Your task to perform on an android device: open app "Walmart Shopping & Grocery" (install if not already installed), go to login, and select forgot password Image 0: 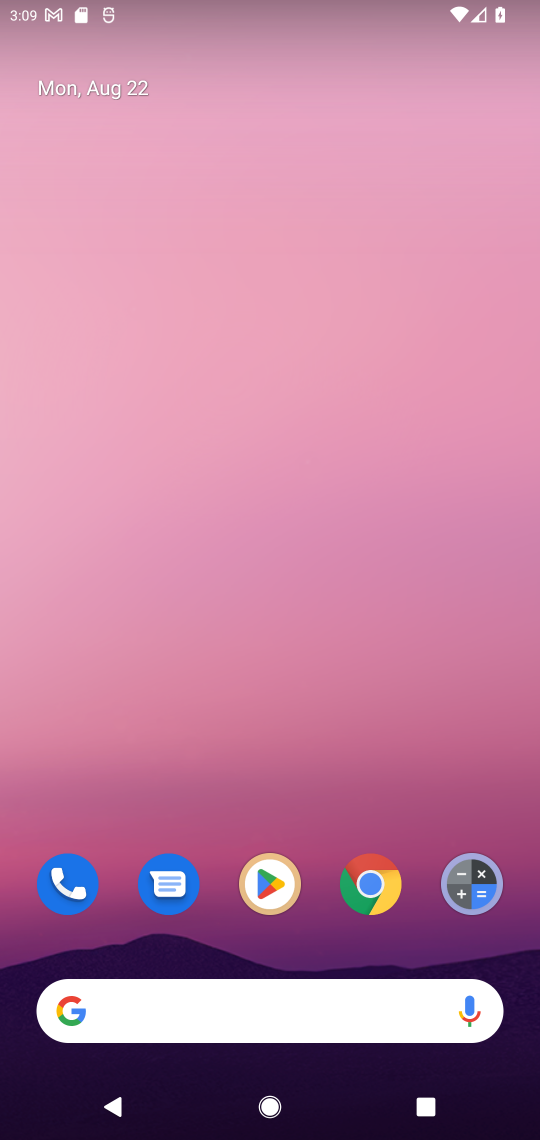
Step 0: click (283, 887)
Your task to perform on an android device: open app "Walmart Shopping & Grocery" (install if not already installed), go to login, and select forgot password Image 1: 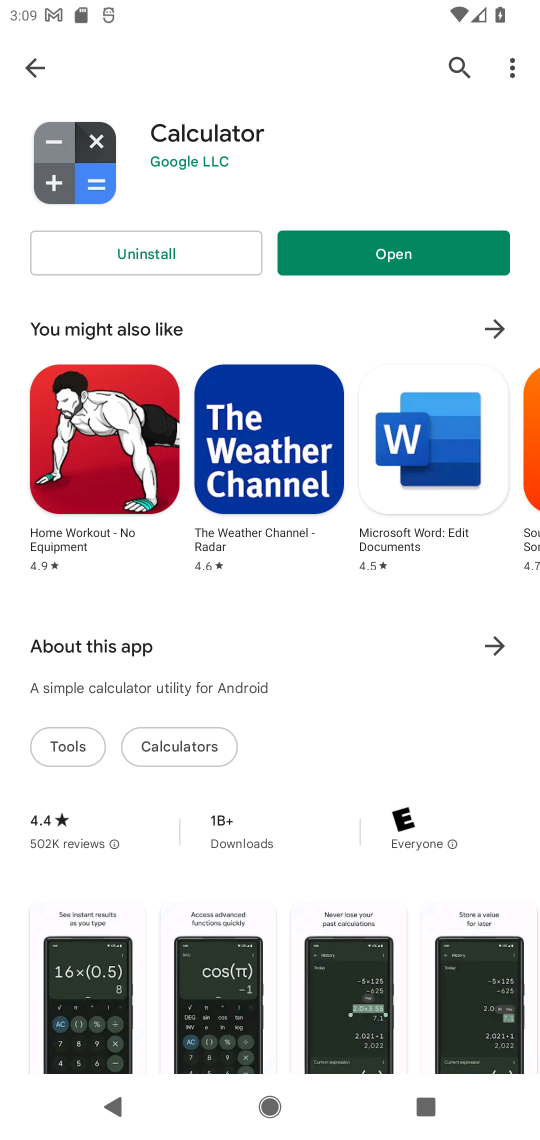
Step 1: click (36, 65)
Your task to perform on an android device: open app "Walmart Shopping & Grocery" (install if not already installed), go to login, and select forgot password Image 2: 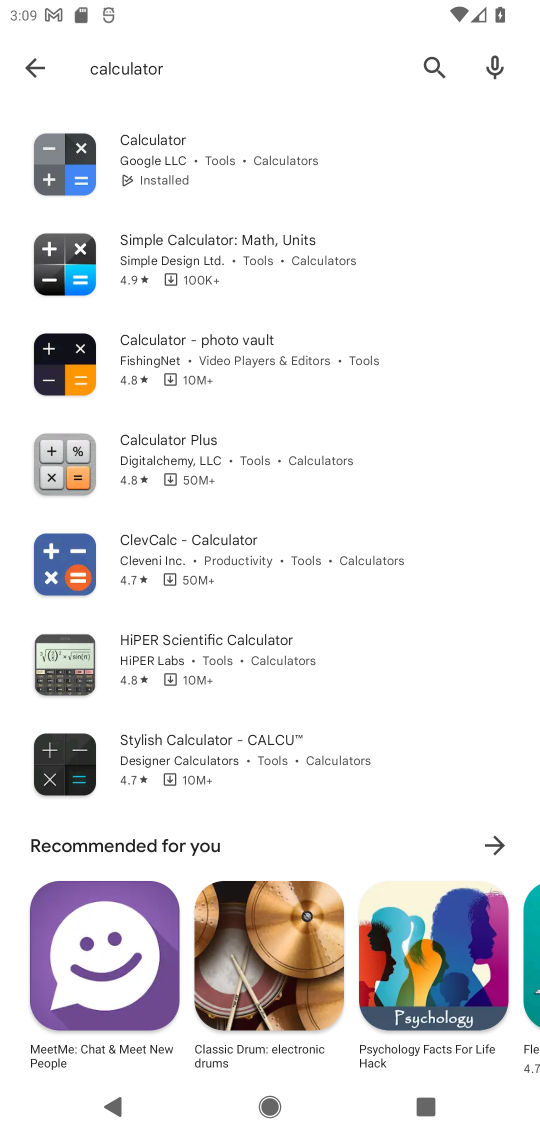
Step 2: click (209, 72)
Your task to perform on an android device: open app "Walmart Shopping & Grocery" (install if not already installed), go to login, and select forgot password Image 3: 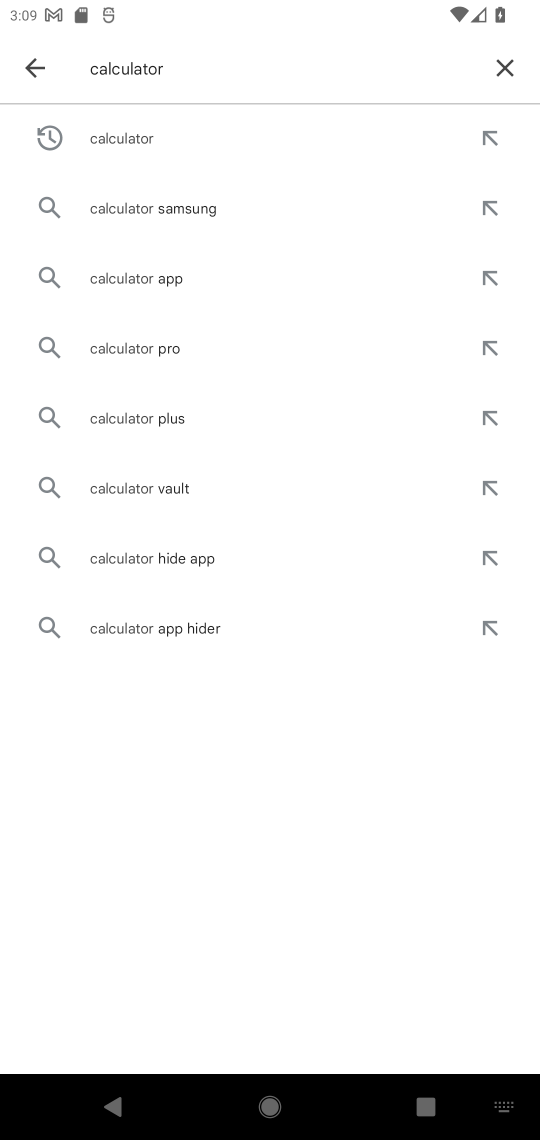
Step 3: click (501, 67)
Your task to perform on an android device: open app "Walmart Shopping & Grocery" (install if not already installed), go to login, and select forgot password Image 4: 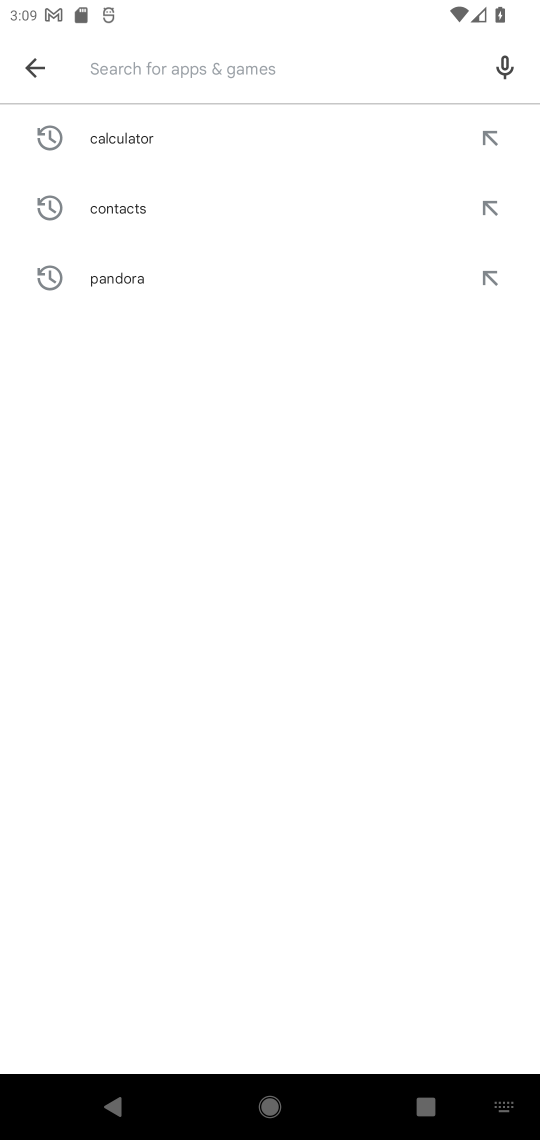
Step 4: type "Walmart"
Your task to perform on an android device: open app "Walmart Shopping & Grocery" (install if not already installed), go to login, and select forgot password Image 5: 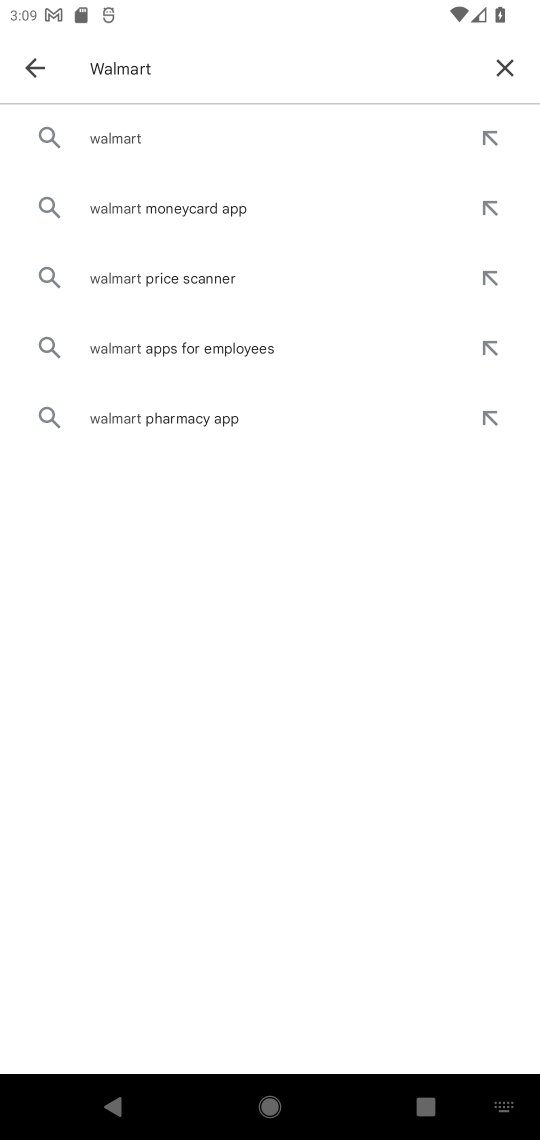
Step 5: click (135, 148)
Your task to perform on an android device: open app "Walmart Shopping & Grocery" (install if not already installed), go to login, and select forgot password Image 6: 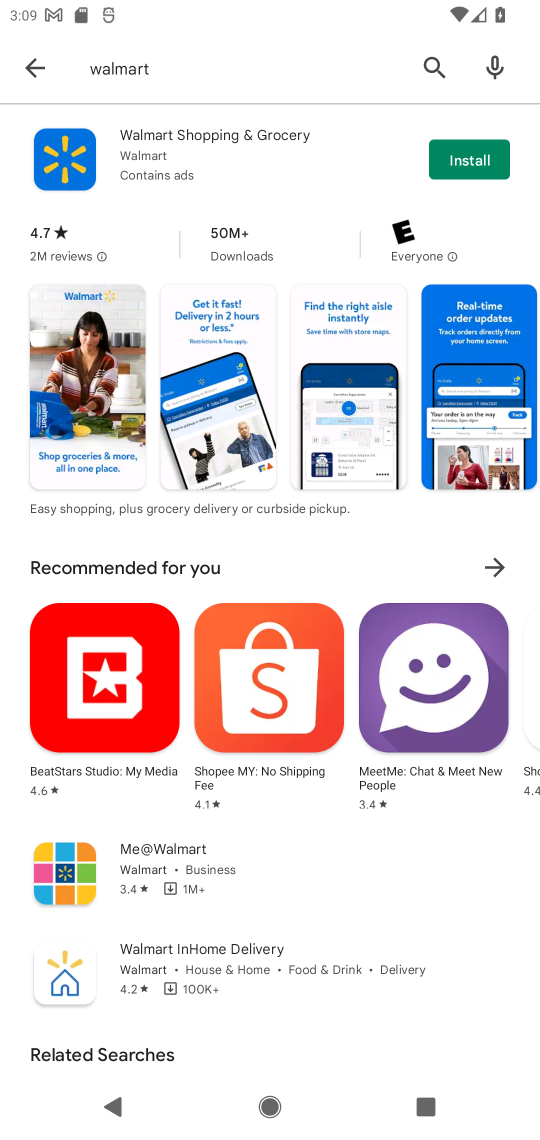
Step 6: click (475, 154)
Your task to perform on an android device: open app "Walmart Shopping & Grocery" (install if not already installed), go to login, and select forgot password Image 7: 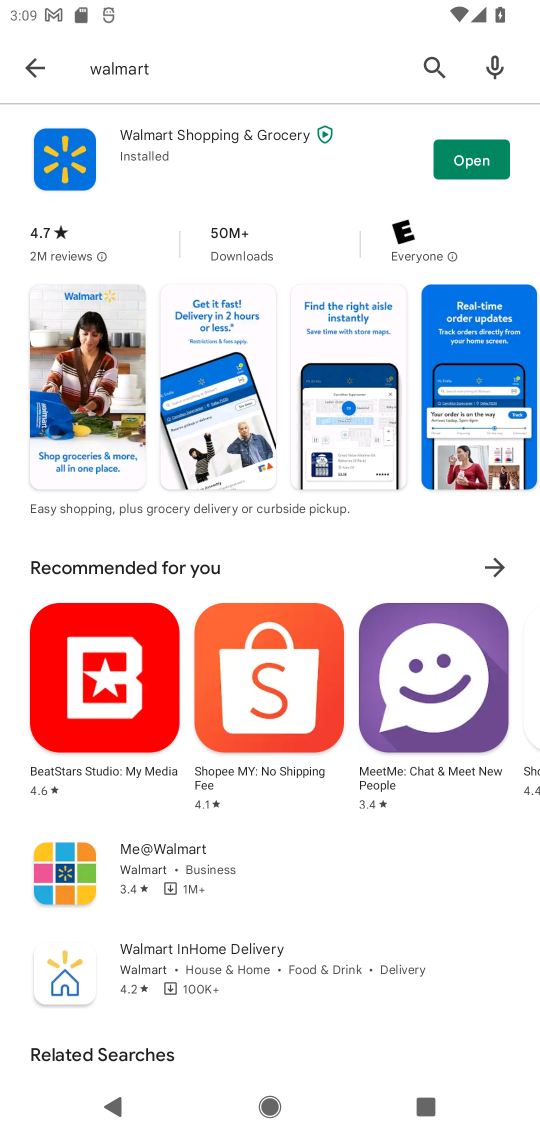
Step 7: click (472, 154)
Your task to perform on an android device: open app "Walmart Shopping & Grocery" (install if not already installed), go to login, and select forgot password Image 8: 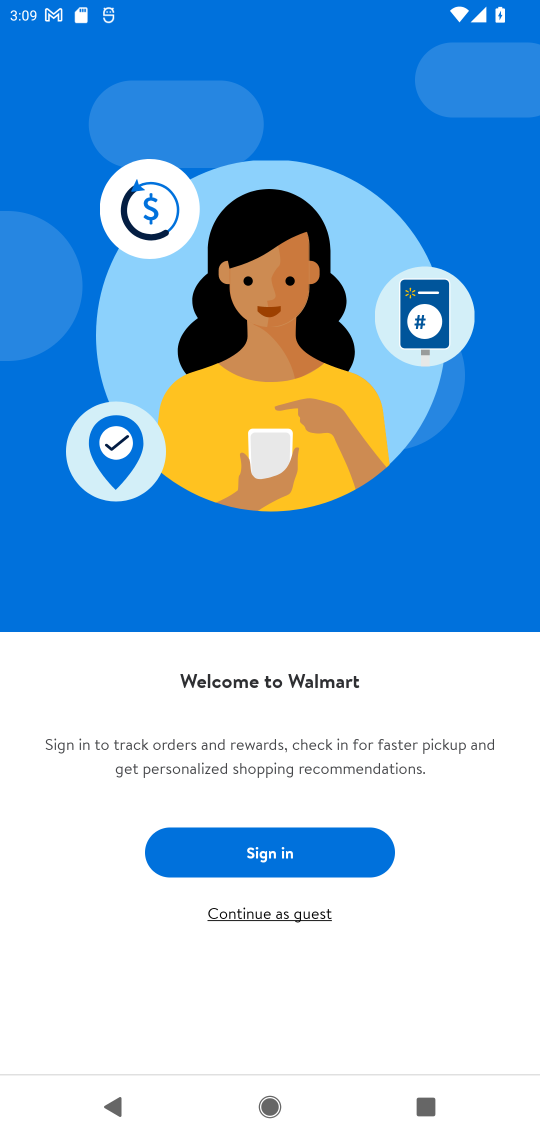
Step 8: click (316, 848)
Your task to perform on an android device: open app "Walmart Shopping & Grocery" (install if not already installed), go to login, and select forgot password Image 9: 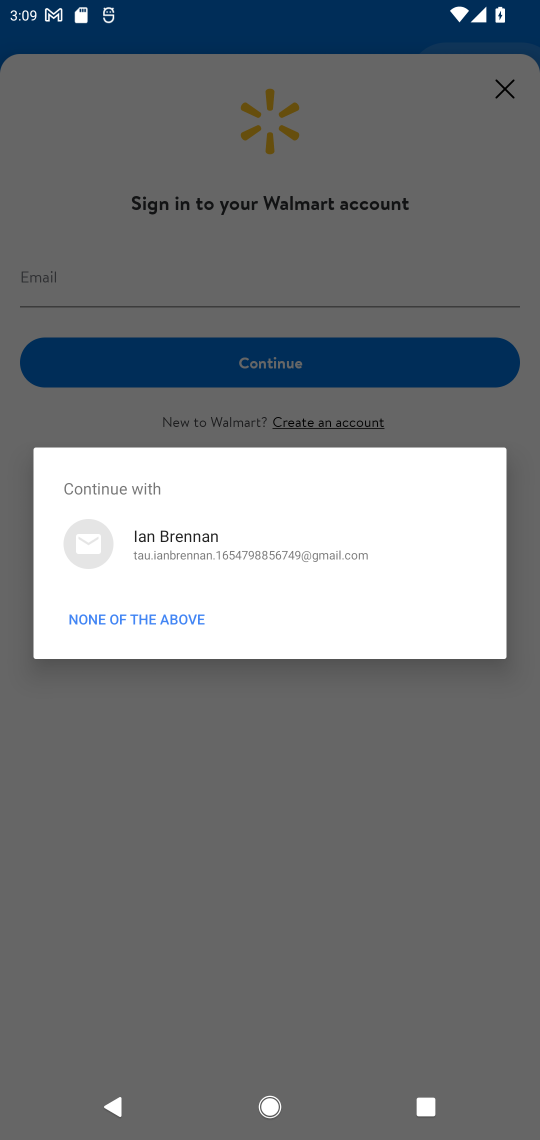
Step 9: task complete